Your task to perform on an android device: What is the news today? Image 0: 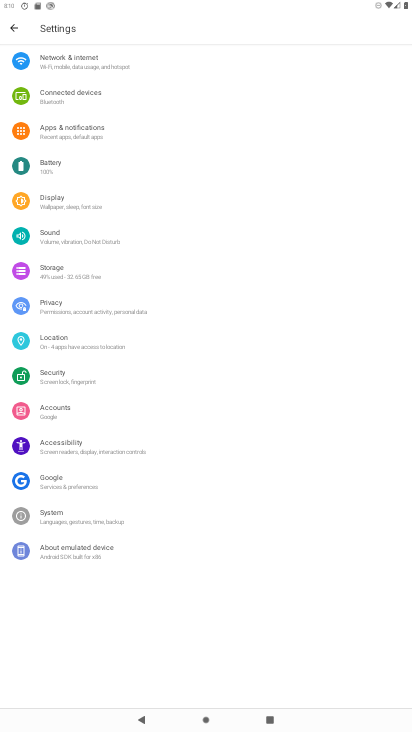
Step 0: press home button
Your task to perform on an android device: What is the news today? Image 1: 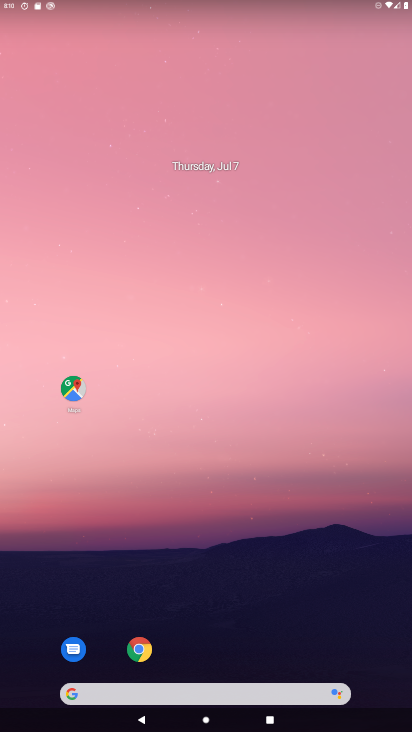
Step 1: task complete